Your task to perform on an android device: add a label to a message in the gmail app Image 0: 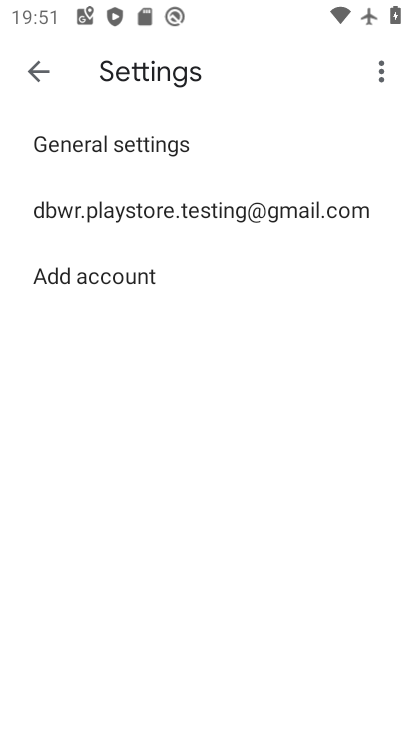
Step 0: press home button
Your task to perform on an android device: add a label to a message in the gmail app Image 1: 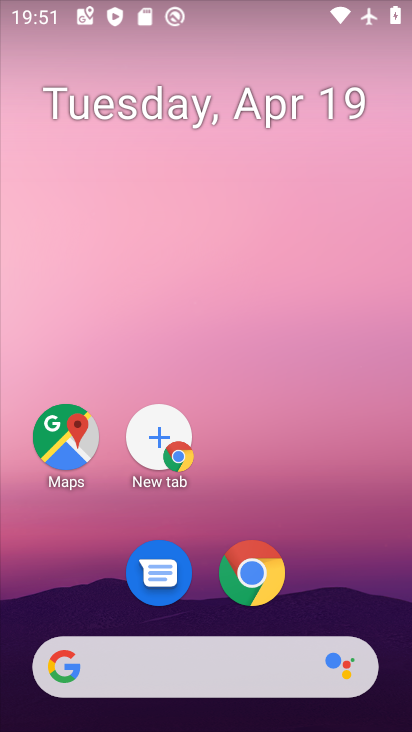
Step 1: drag from (335, 279) to (287, 5)
Your task to perform on an android device: add a label to a message in the gmail app Image 2: 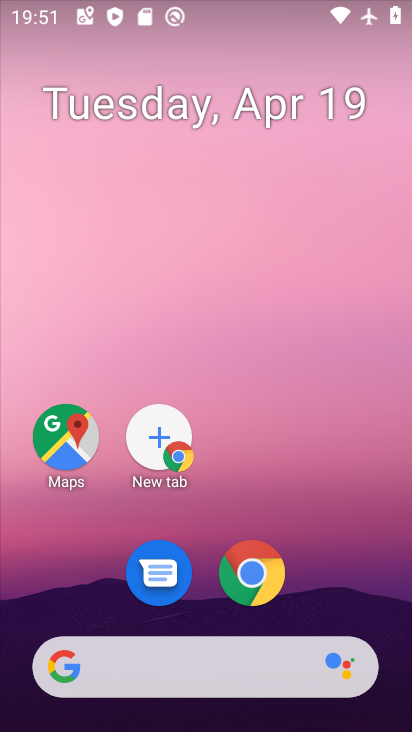
Step 2: drag from (357, 551) to (327, 16)
Your task to perform on an android device: add a label to a message in the gmail app Image 3: 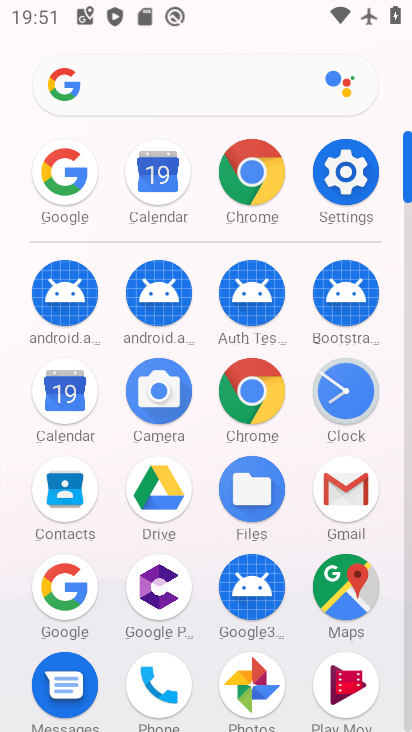
Step 3: click (351, 536)
Your task to perform on an android device: add a label to a message in the gmail app Image 4: 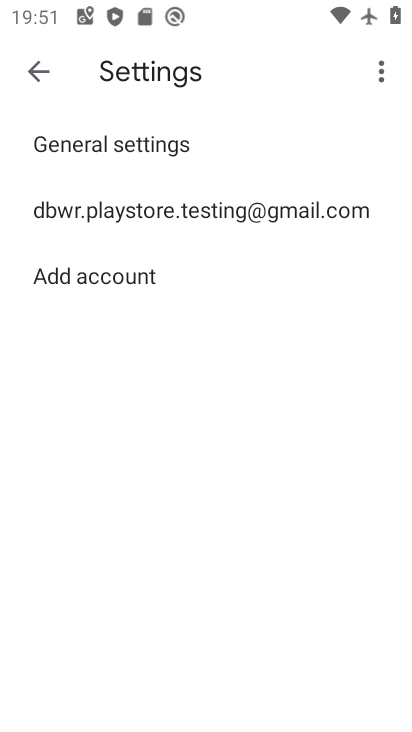
Step 4: click (33, 71)
Your task to perform on an android device: add a label to a message in the gmail app Image 5: 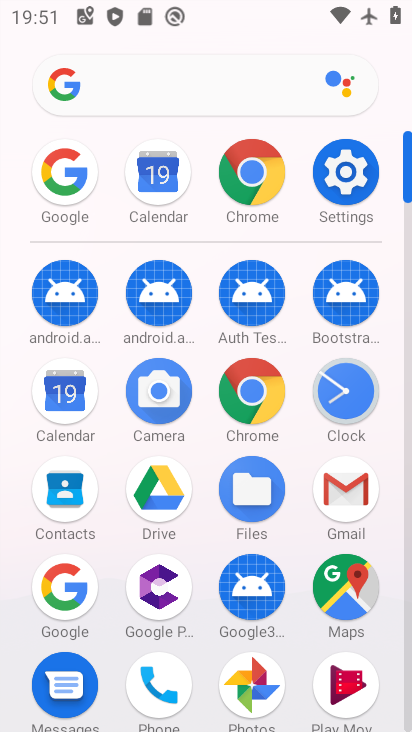
Step 5: click (349, 492)
Your task to perform on an android device: add a label to a message in the gmail app Image 6: 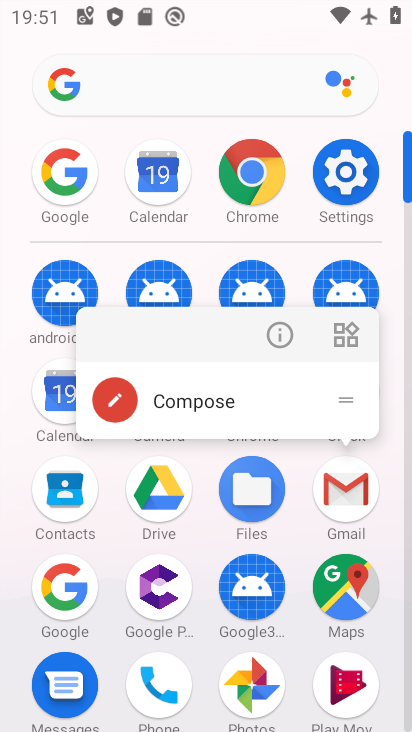
Step 6: click (349, 492)
Your task to perform on an android device: add a label to a message in the gmail app Image 7: 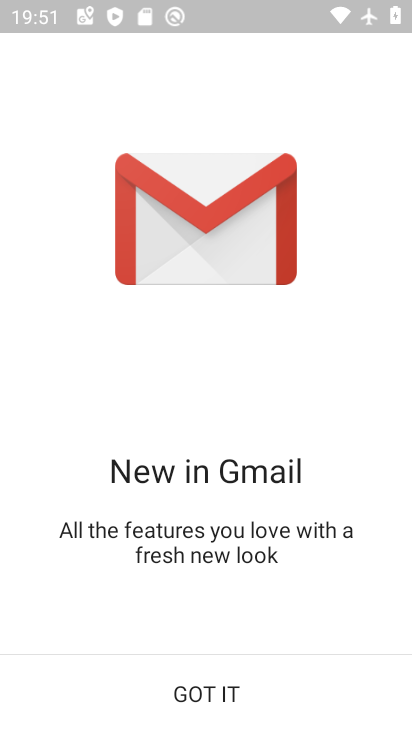
Step 7: click (222, 683)
Your task to perform on an android device: add a label to a message in the gmail app Image 8: 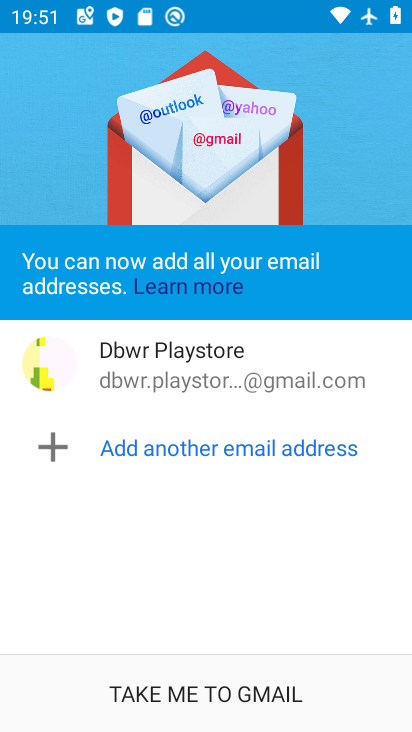
Step 8: click (222, 683)
Your task to perform on an android device: add a label to a message in the gmail app Image 9: 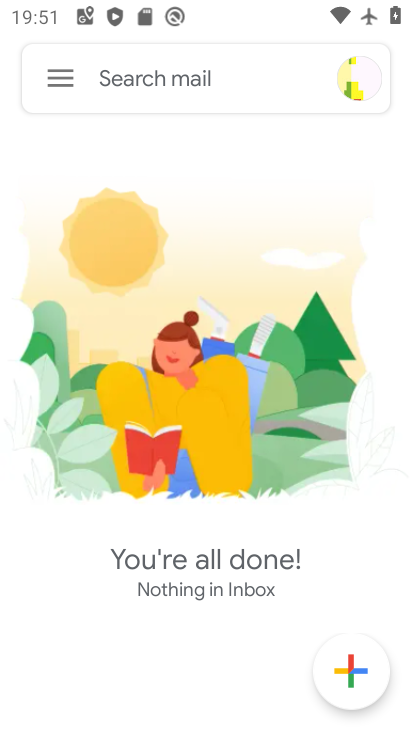
Step 9: task complete